Your task to perform on an android device: What is the recent news? Image 0: 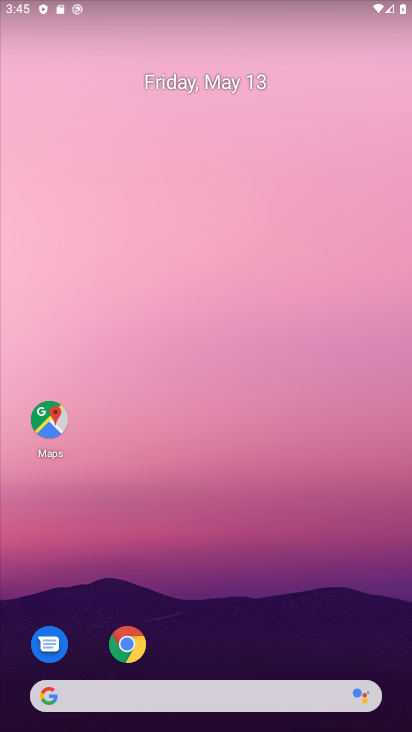
Step 0: drag from (316, 629) to (252, 213)
Your task to perform on an android device: What is the recent news? Image 1: 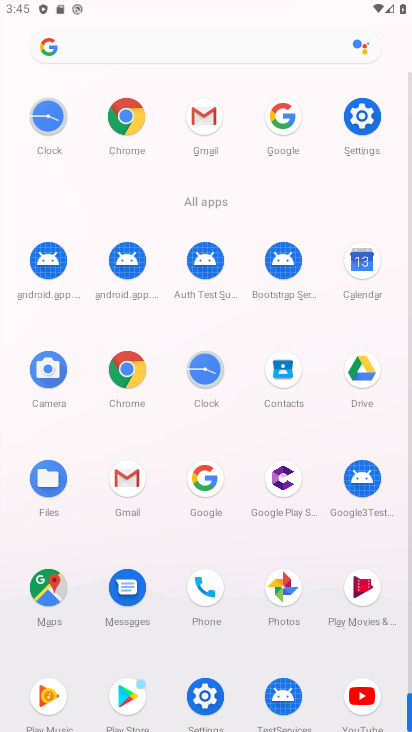
Step 1: task complete